Your task to perform on an android device: What's the weather today? Image 0: 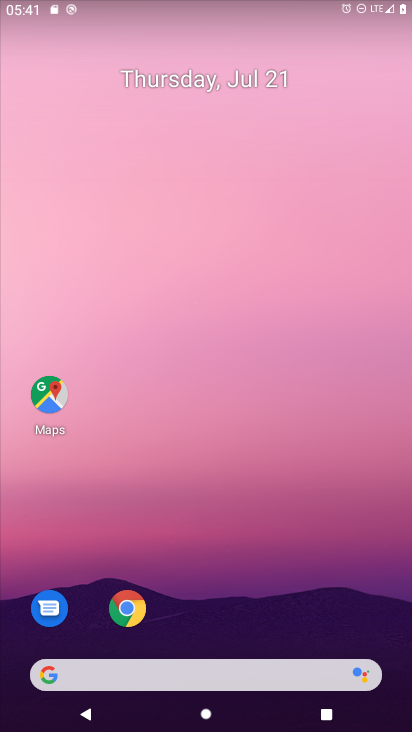
Step 0: drag from (283, 669) to (315, 56)
Your task to perform on an android device: What's the weather today? Image 1: 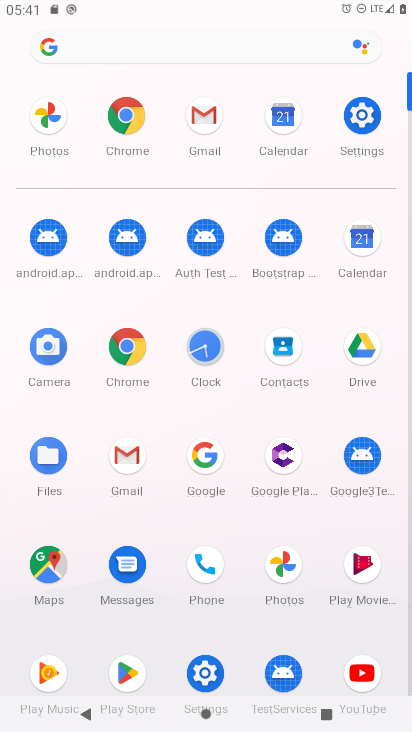
Step 1: click (138, 350)
Your task to perform on an android device: What's the weather today? Image 2: 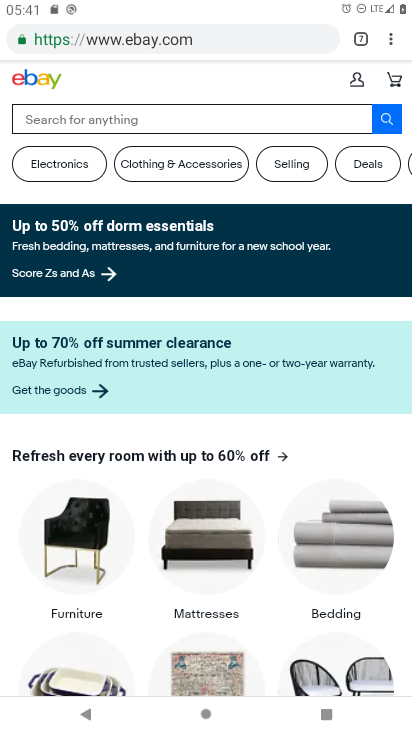
Step 2: click (165, 46)
Your task to perform on an android device: What's the weather today? Image 3: 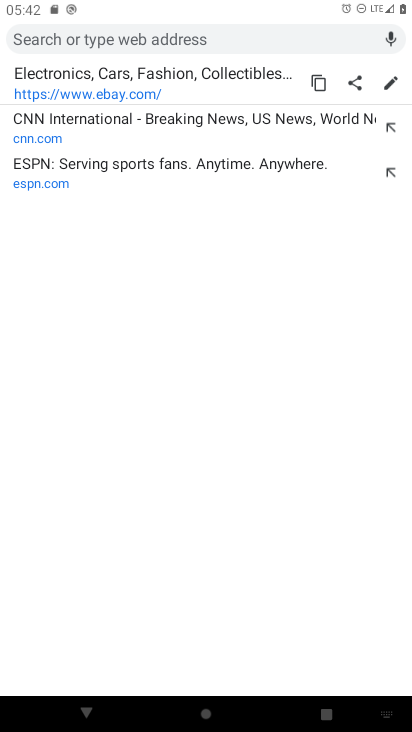
Step 3: type "weather today"
Your task to perform on an android device: What's the weather today? Image 4: 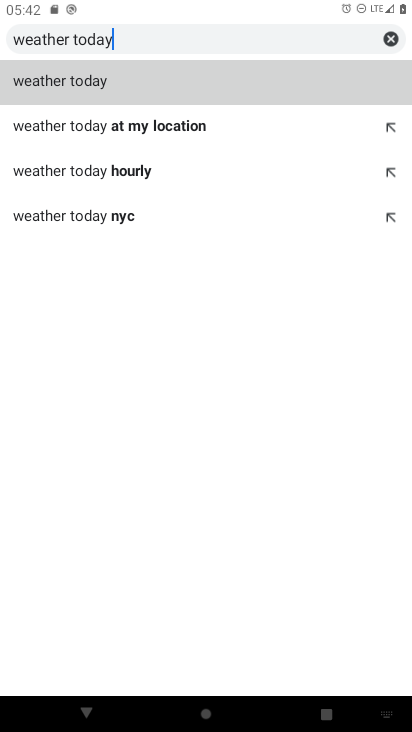
Step 4: click (137, 72)
Your task to perform on an android device: What's the weather today? Image 5: 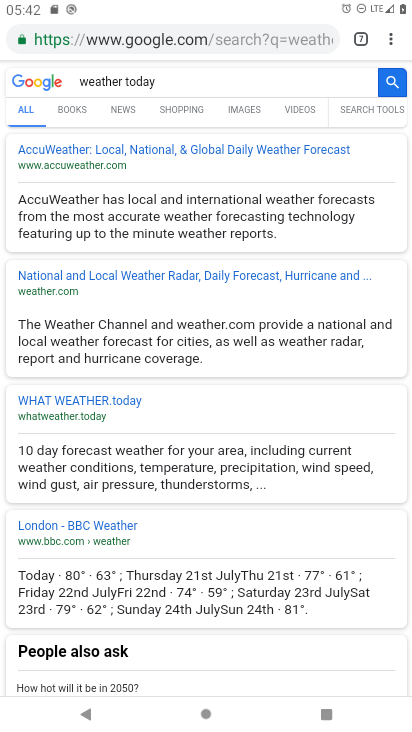
Step 5: task complete